Your task to perform on an android device: check battery use Image 0: 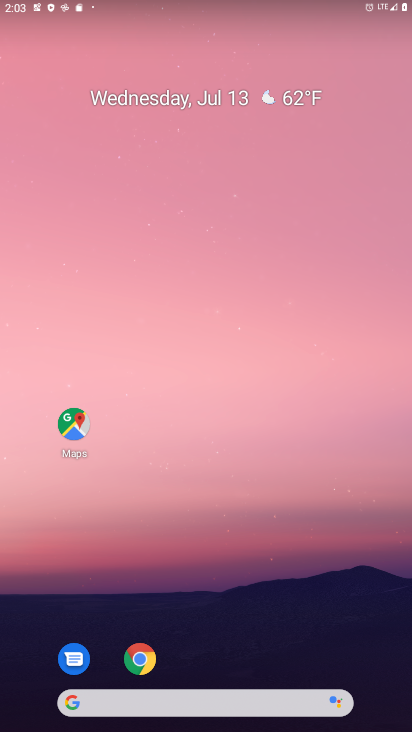
Step 0: drag from (225, 729) to (225, 653)
Your task to perform on an android device: check battery use Image 1: 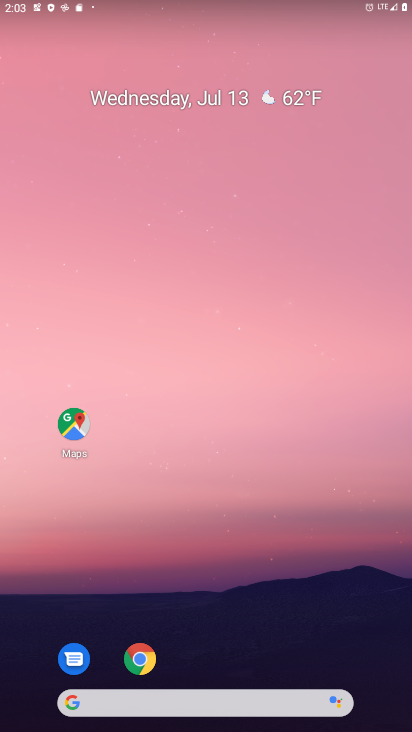
Step 1: drag from (248, 446) to (271, 205)
Your task to perform on an android device: check battery use Image 2: 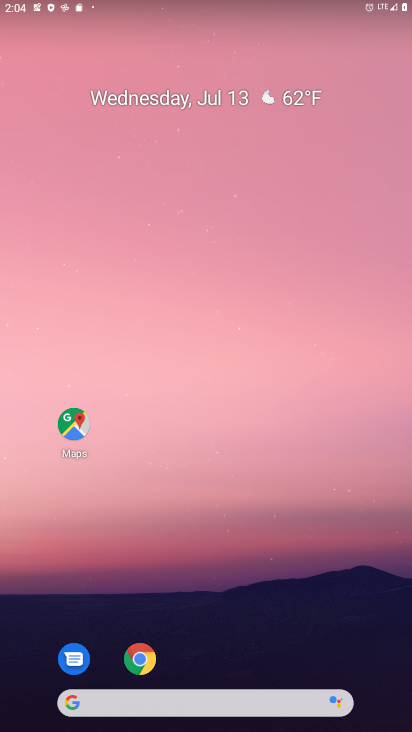
Step 2: drag from (224, 714) to (224, 135)
Your task to perform on an android device: check battery use Image 3: 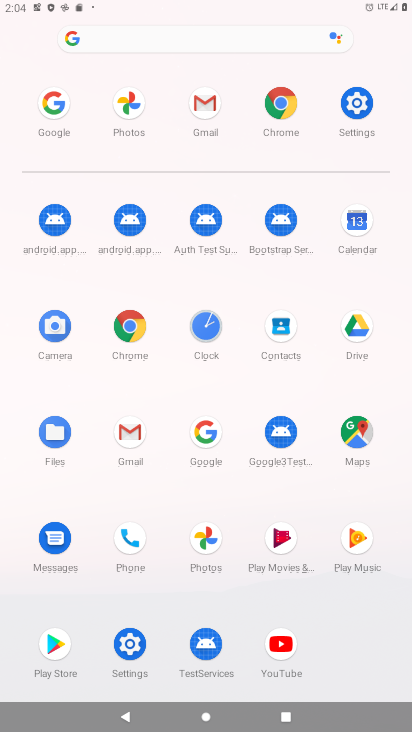
Step 3: click (354, 107)
Your task to perform on an android device: check battery use Image 4: 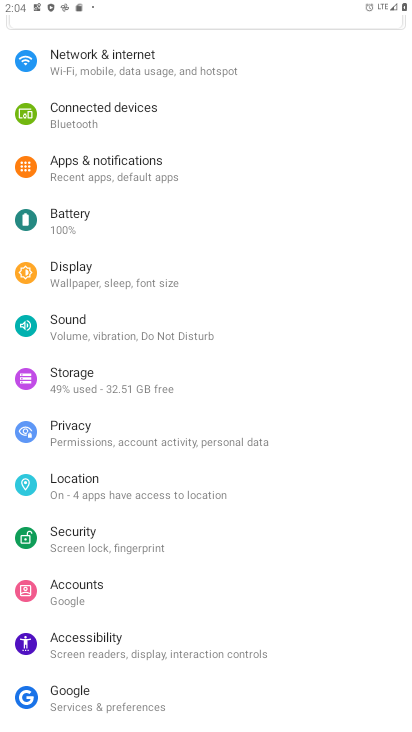
Step 4: click (72, 220)
Your task to perform on an android device: check battery use Image 5: 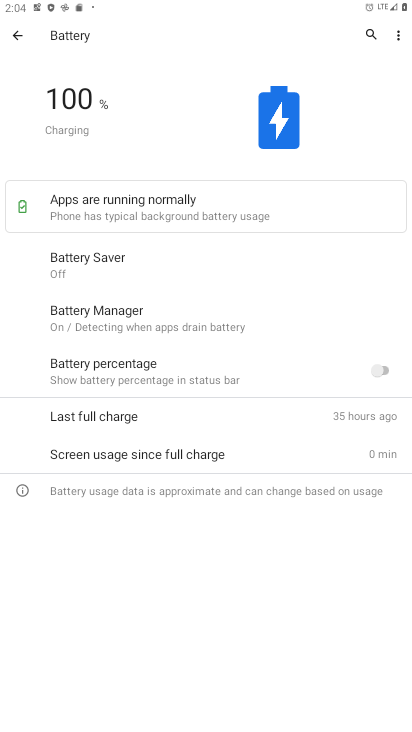
Step 5: click (398, 38)
Your task to perform on an android device: check battery use Image 6: 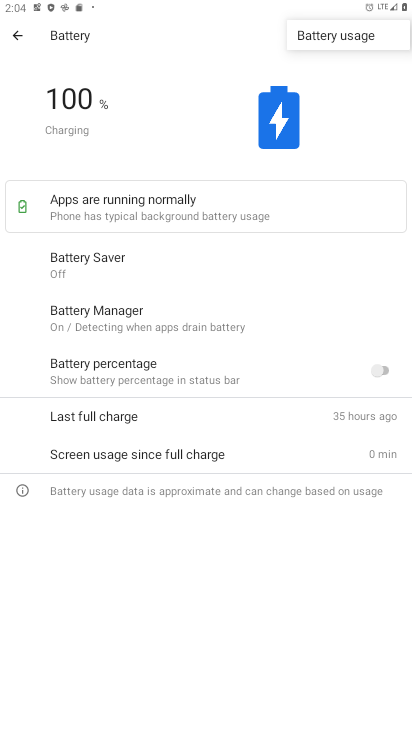
Step 6: click (343, 36)
Your task to perform on an android device: check battery use Image 7: 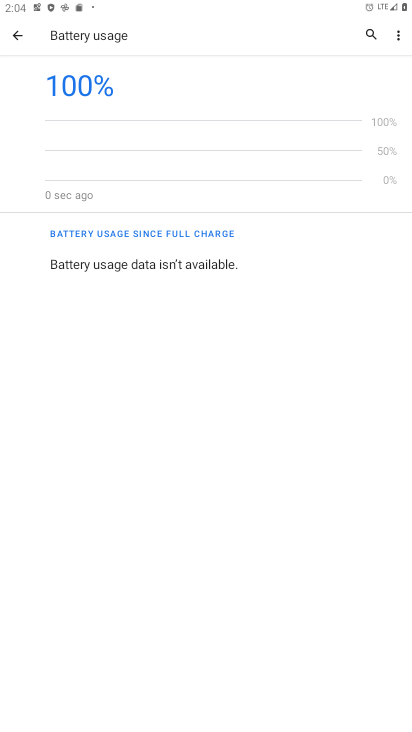
Step 7: task complete